Your task to perform on an android device: see tabs open on other devices in the chrome app Image 0: 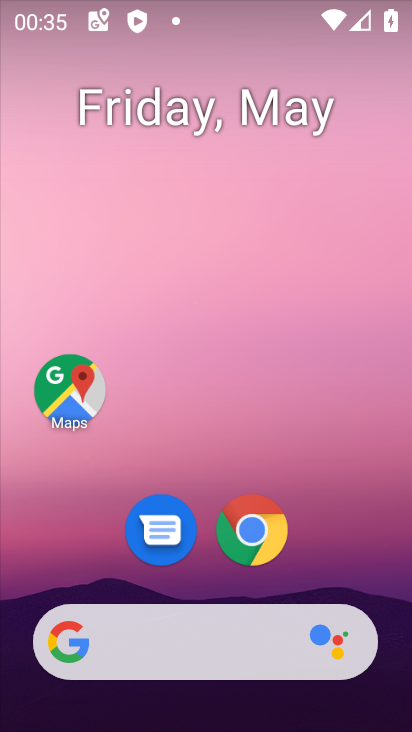
Step 0: click (256, 529)
Your task to perform on an android device: see tabs open on other devices in the chrome app Image 1: 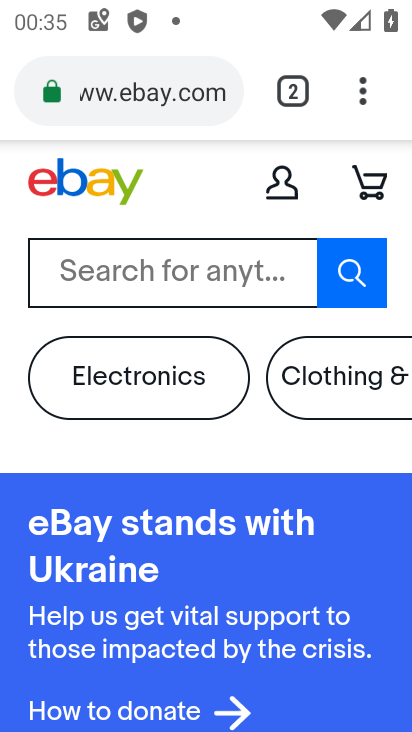
Step 1: click (361, 89)
Your task to perform on an android device: see tabs open on other devices in the chrome app Image 2: 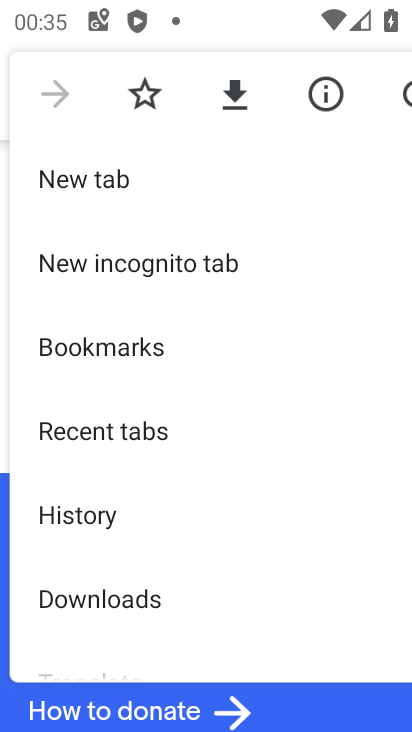
Step 2: drag from (113, 461) to (175, 390)
Your task to perform on an android device: see tabs open on other devices in the chrome app Image 3: 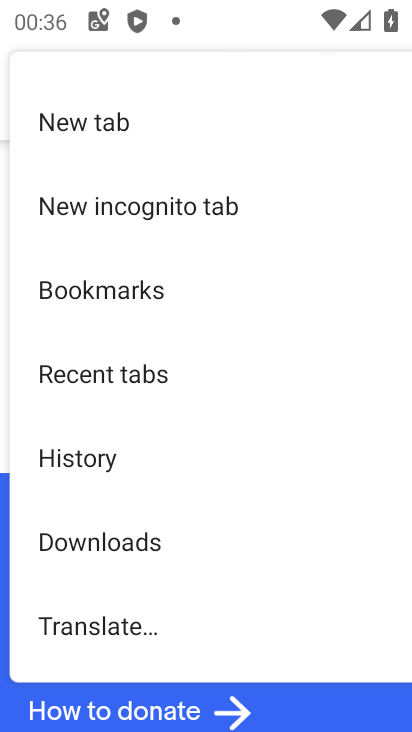
Step 3: click (133, 372)
Your task to perform on an android device: see tabs open on other devices in the chrome app Image 4: 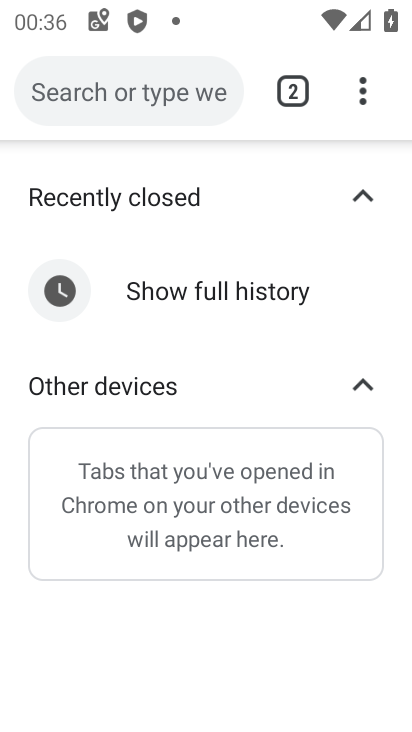
Step 4: click (345, 388)
Your task to perform on an android device: see tabs open on other devices in the chrome app Image 5: 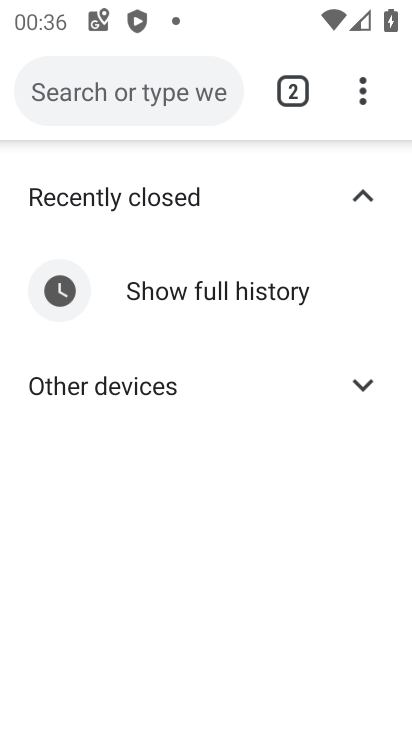
Step 5: click (361, 195)
Your task to perform on an android device: see tabs open on other devices in the chrome app Image 6: 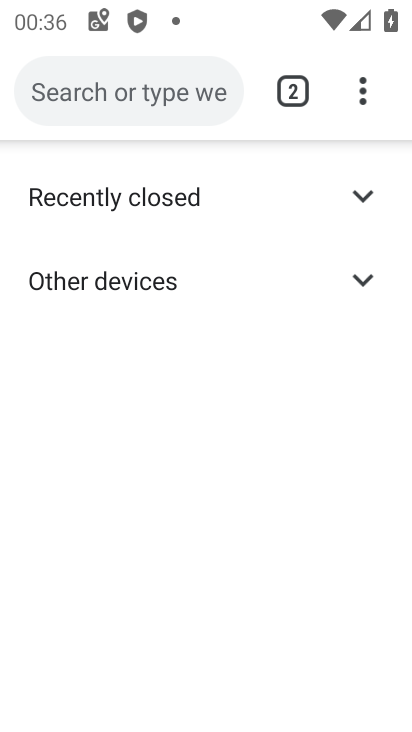
Step 6: task complete